Your task to perform on an android device: Go to Maps Image 0: 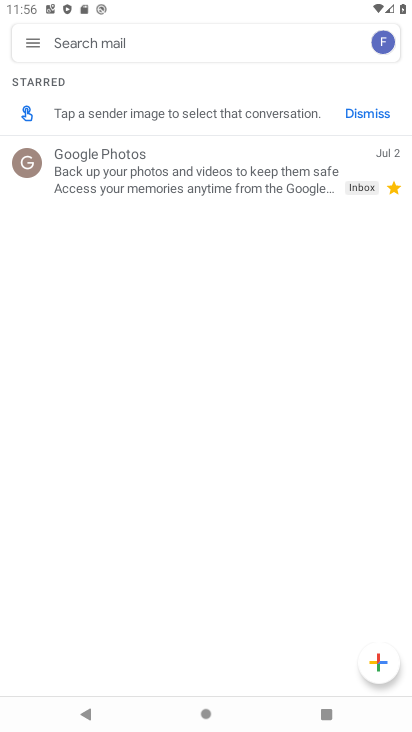
Step 0: press home button
Your task to perform on an android device: Go to Maps Image 1: 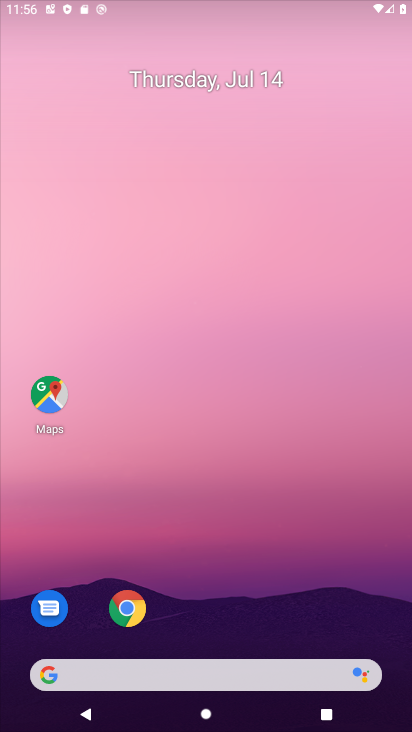
Step 1: drag from (210, 640) to (212, 3)
Your task to perform on an android device: Go to Maps Image 2: 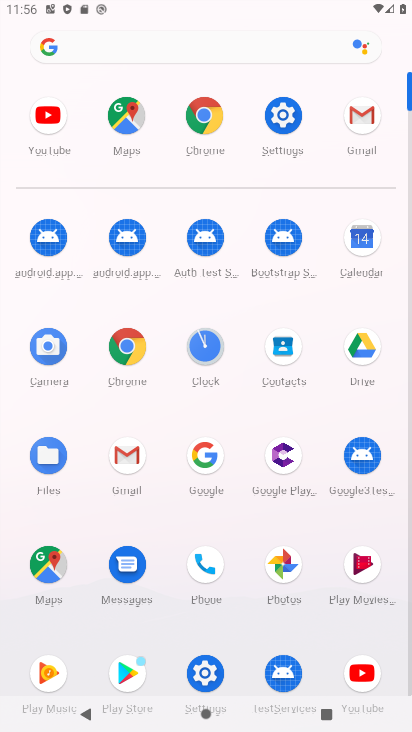
Step 2: click (41, 561)
Your task to perform on an android device: Go to Maps Image 3: 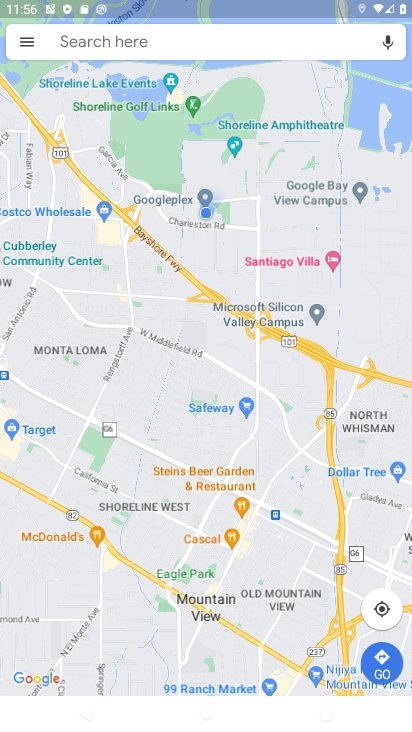
Step 3: task complete